Your task to perform on an android device: Open Google Chrome and click the shortcut for Amazon.com Image 0: 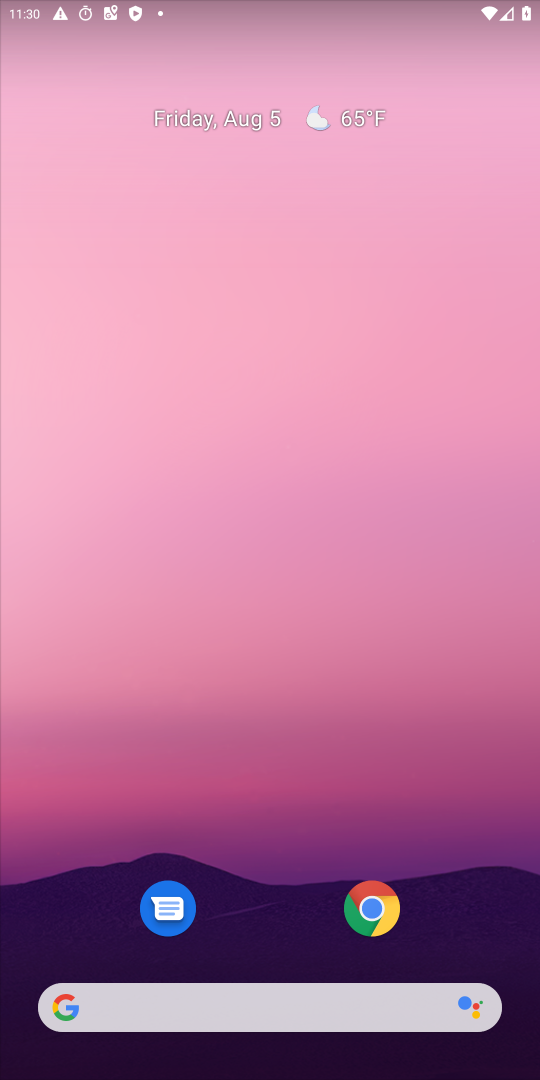
Step 0: click (383, 920)
Your task to perform on an android device: Open Google Chrome and click the shortcut for Amazon.com Image 1: 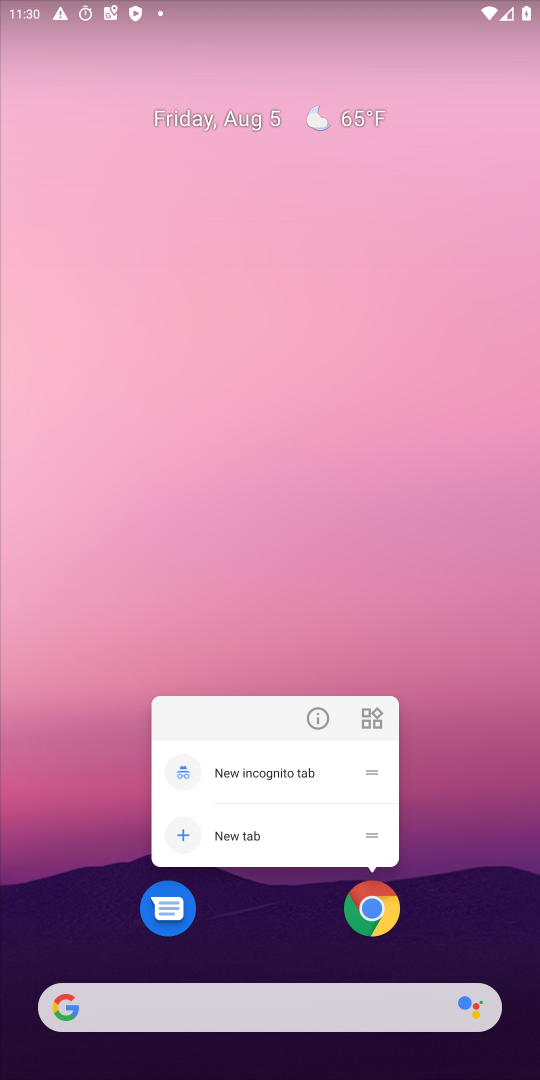
Step 1: click (383, 920)
Your task to perform on an android device: Open Google Chrome and click the shortcut for Amazon.com Image 2: 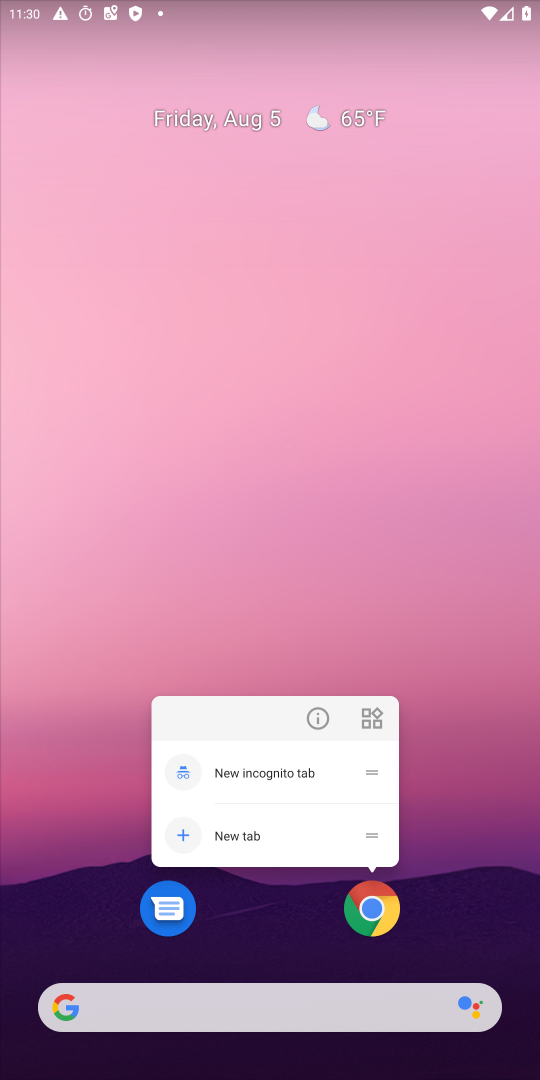
Step 2: click (368, 898)
Your task to perform on an android device: Open Google Chrome and click the shortcut for Amazon.com Image 3: 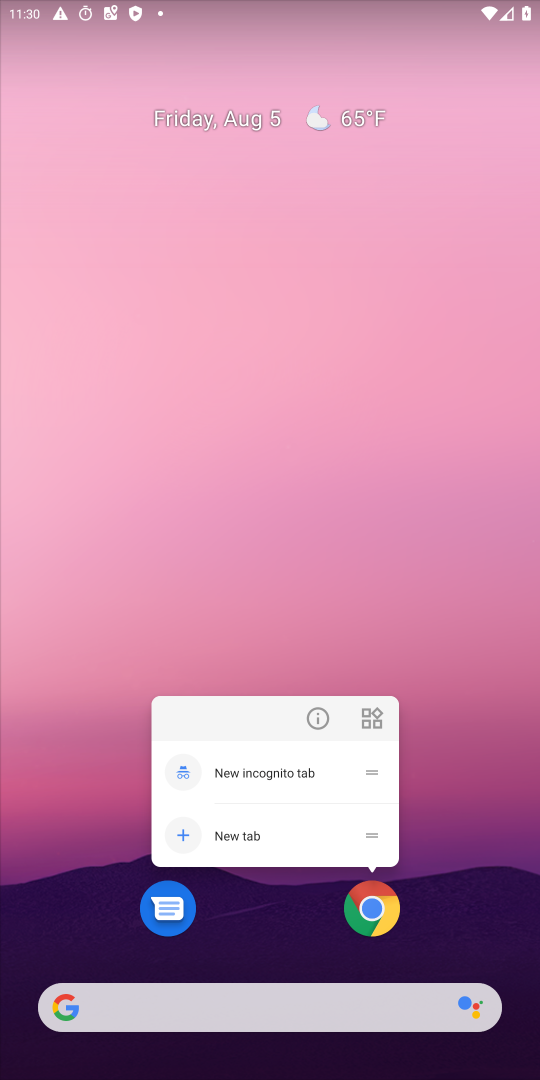
Step 3: task complete